Your task to perform on an android device: check data usage Image 0: 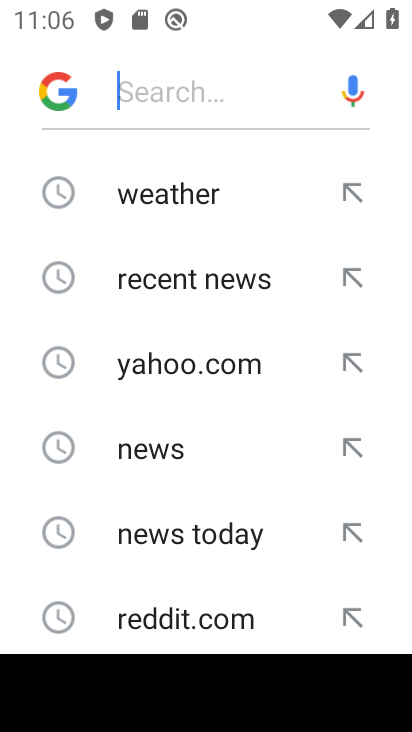
Step 0: press home button
Your task to perform on an android device: check data usage Image 1: 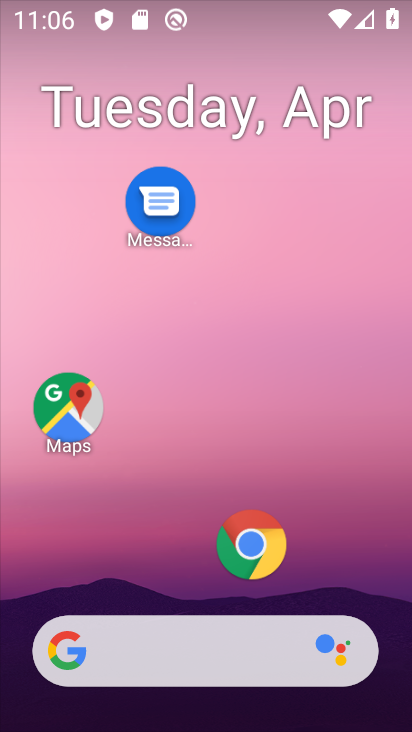
Step 1: drag from (175, 445) to (323, 27)
Your task to perform on an android device: check data usage Image 2: 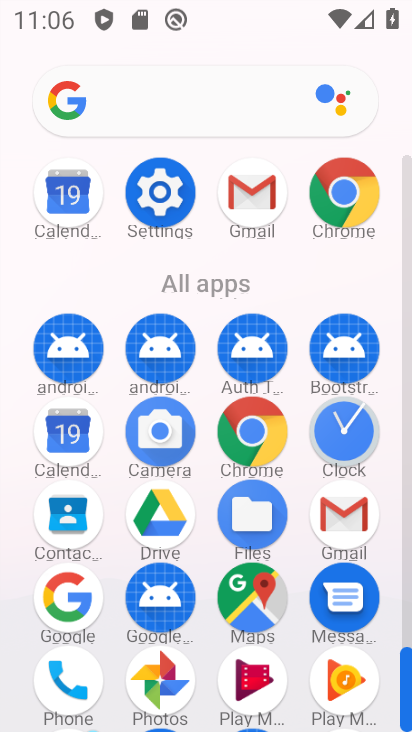
Step 2: click (162, 205)
Your task to perform on an android device: check data usage Image 3: 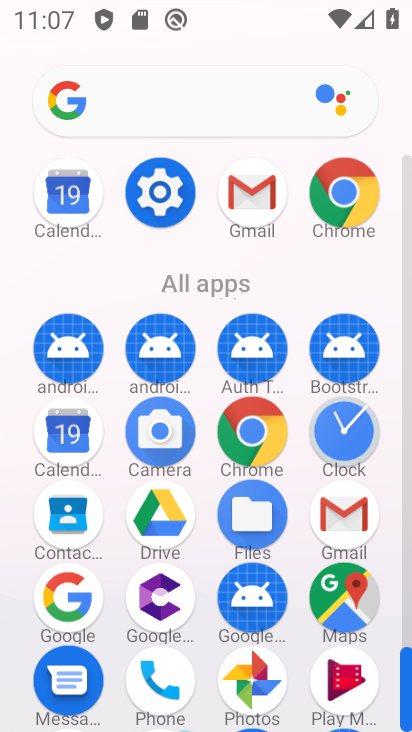
Step 3: click (164, 201)
Your task to perform on an android device: check data usage Image 4: 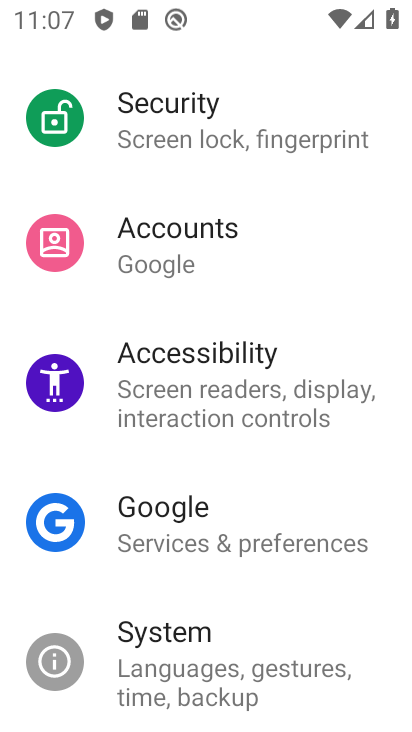
Step 4: drag from (205, 209) to (154, 727)
Your task to perform on an android device: check data usage Image 5: 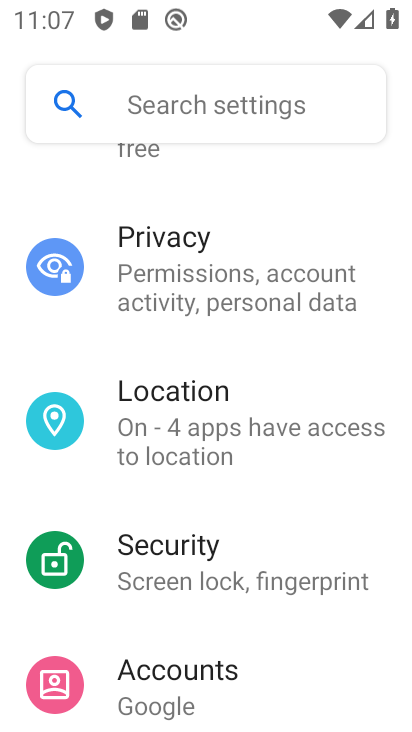
Step 5: drag from (256, 307) to (208, 700)
Your task to perform on an android device: check data usage Image 6: 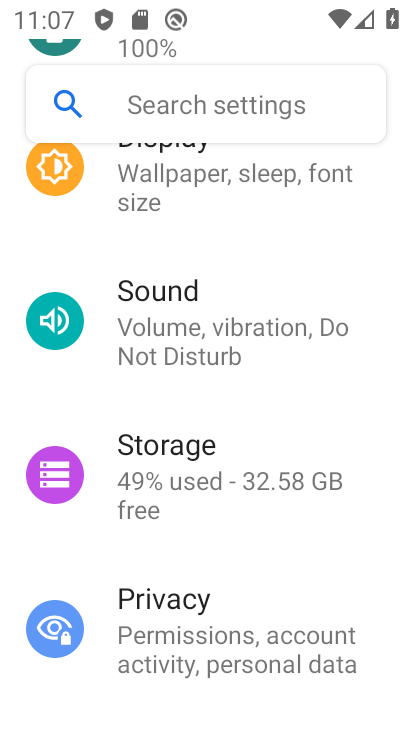
Step 6: drag from (298, 265) to (263, 534)
Your task to perform on an android device: check data usage Image 7: 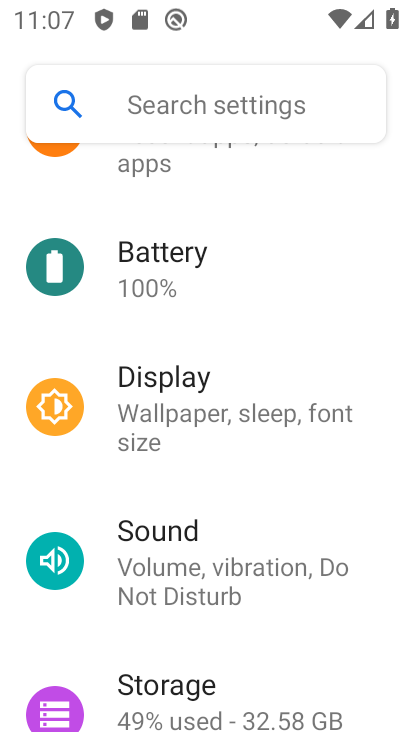
Step 7: drag from (215, 329) to (176, 706)
Your task to perform on an android device: check data usage Image 8: 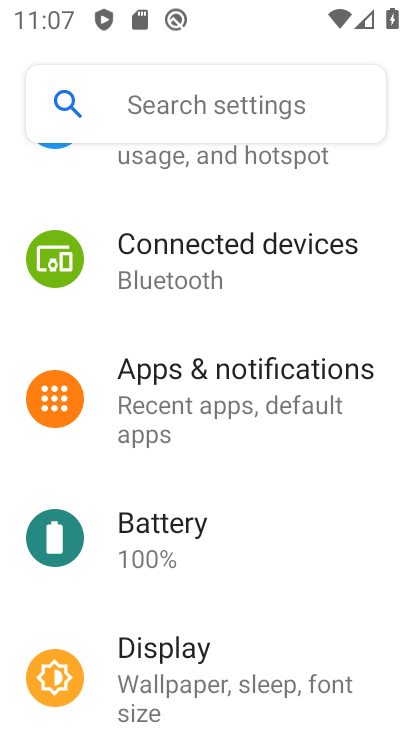
Step 8: drag from (230, 355) to (214, 645)
Your task to perform on an android device: check data usage Image 9: 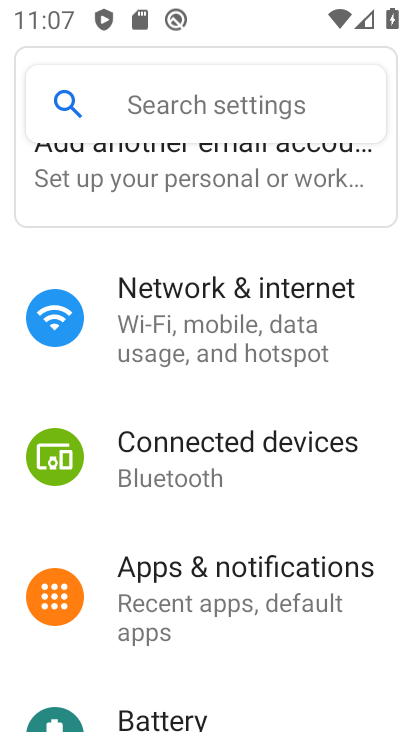
Step 9: click (203, 350)
Your task to perform on an android device: check data usage Image 10: 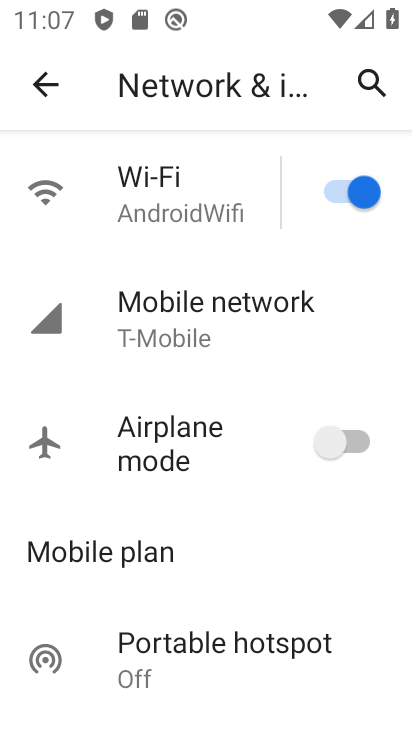
Step 10: click (192, 339)
Your task to perform on an android device: check data usage Image 11: 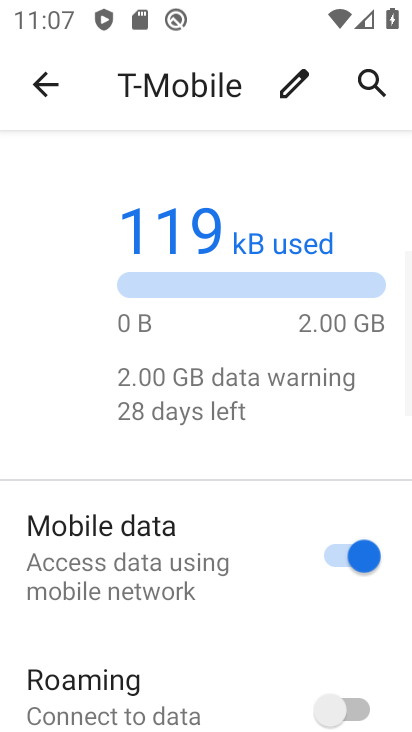
Step 11: drag from (168, 572) to (236, 259)
Your task to perform on an android device: check data usage Image 12: 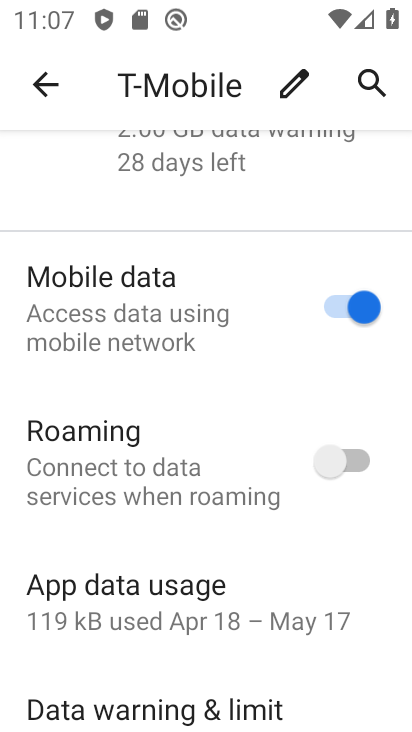
Step 12: click (125, 616)
Your task to perform on an android device: check data usage Image 13: 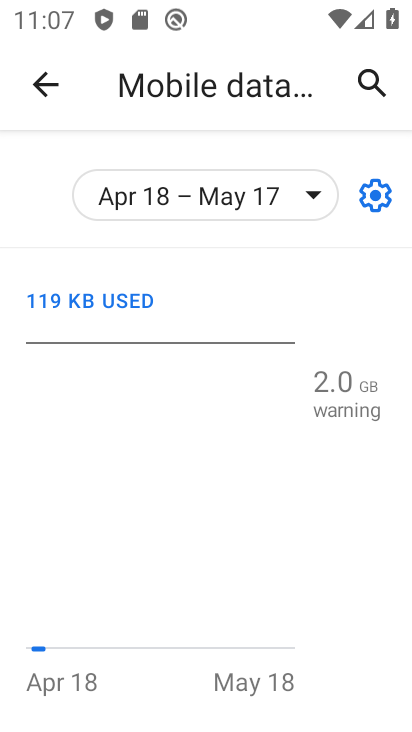
Step 13: task complete